Your task to perform on an android device: turn off translation in the chrome app Image 0: 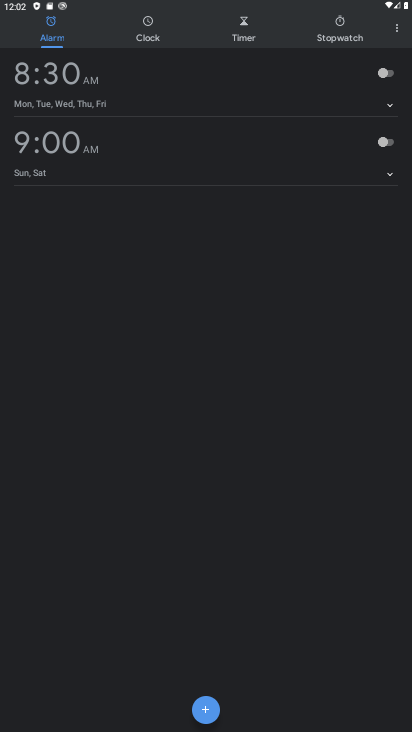
Step 0: press home button
Your task to perform on an android device: turn off translation in the chrome app Image 1: 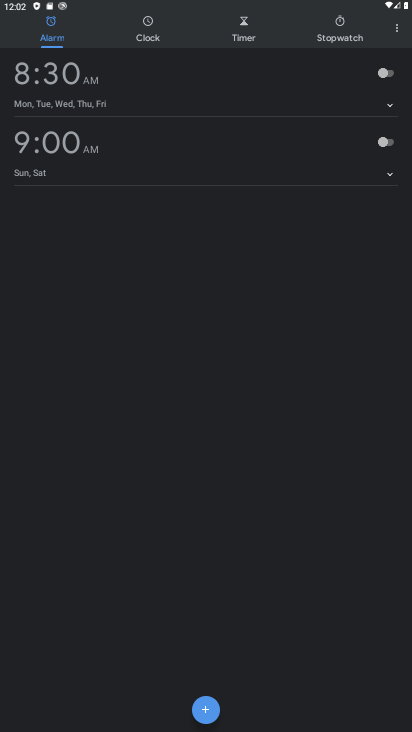
Step 1: drag from (180, 669) to (265, 105)
Your task to perform on an android device: turn off translation in the chrome app Image 2: 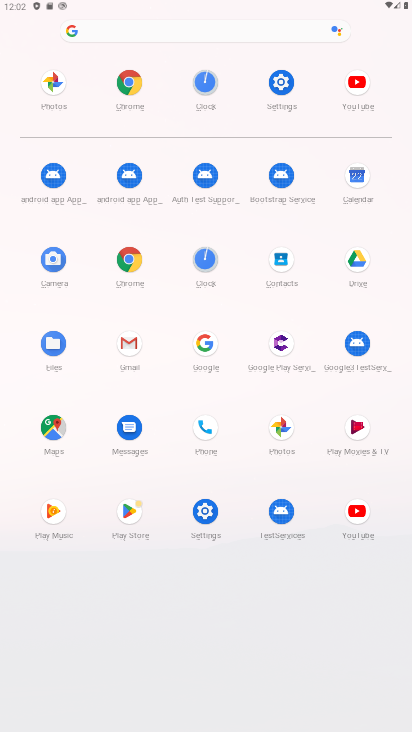
Step 2: click (120, 248)
Your task to perform on an android device: turn off translation in the chrome app Image 3: 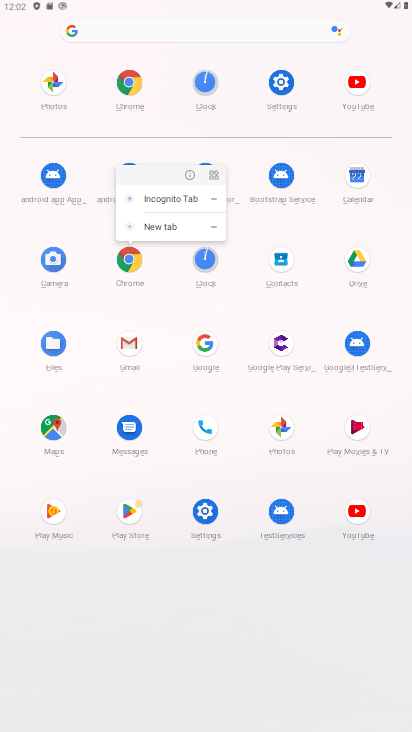
Step 3: click (193, 168)
Your task to perform on an android device: turn off translation in the chrome app Image 4: 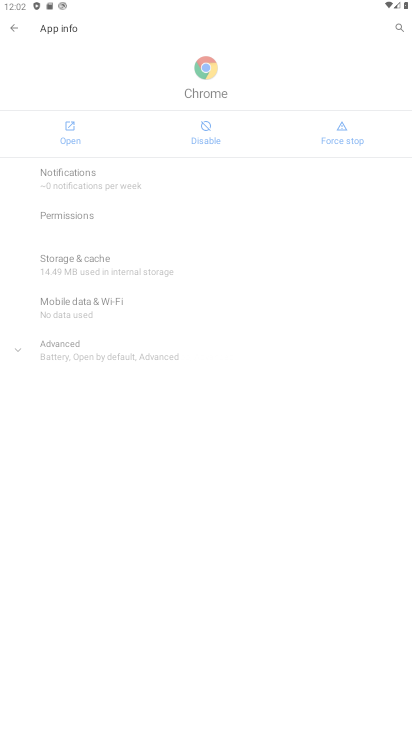
Step 4: drag from (233, 487) to (188, 216)
Your task to perform on an android device: turn off translation in the chrome app Image 5: 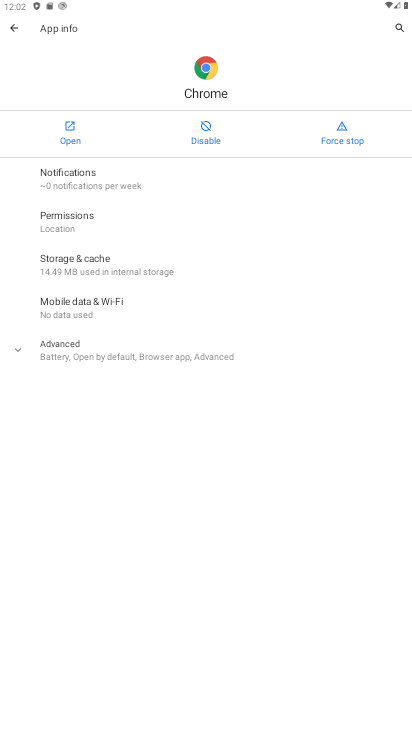
Step 5: click (68, 124)
Your task to perform on an android device: turn off translation in the chrome app Image 6: 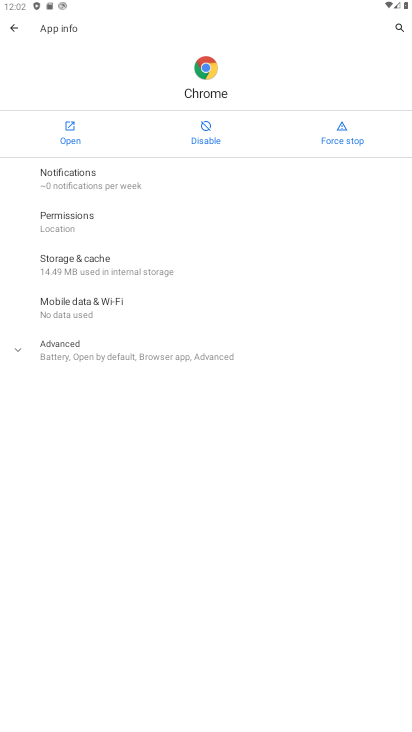
Step 6: click (68, 124)
Your task to perform on an android device: turn off translation in the chrome app Image 7: 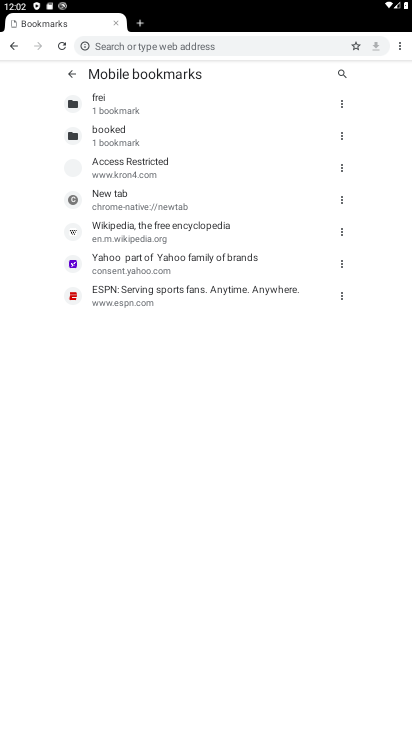
Step 7: drag from (399, 44) to (319, 212)
Your task to perform on an android device: turn off translation in the chrome app Image 8: 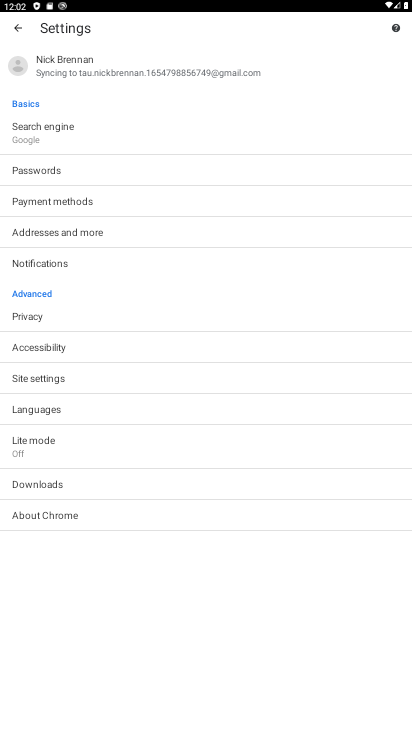
Step 8: click (51, 414)
Your task to perform on an android device: turn off translation in the chrome app Image 9: 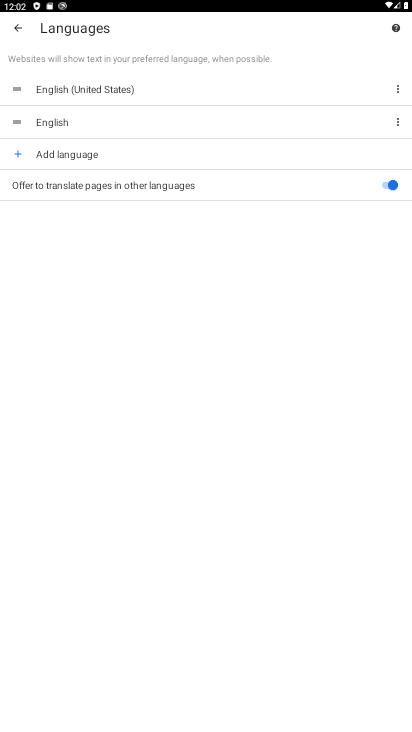
Step 9: click (392, 184)
Your task to perform on an android device: turn off translation in the chrome app Image 10: 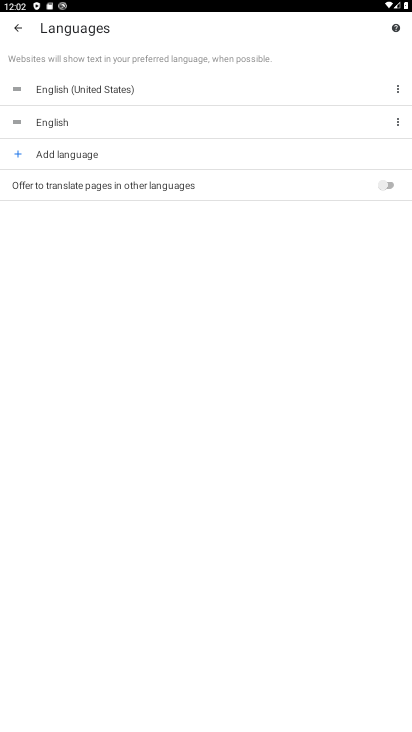
Step 10: task complete